Your task to perform on an android device: change the clock display to show seconds Image 0: 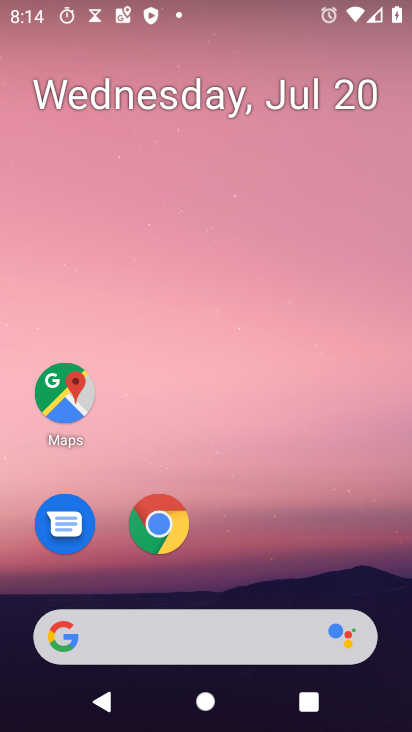
Step 0: drag from (196, 646) to (326, 173)
Your task to perform on an android device: change the clock display to show seconds Image 1: 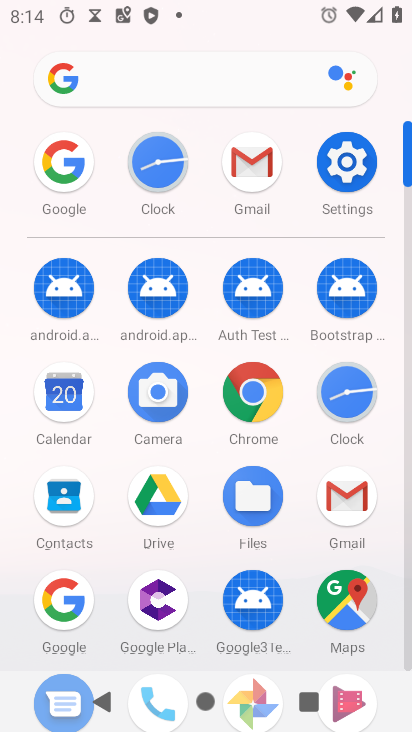
Step 1: click (156, 175)
Your task to perform on an android device: change the clock display to show seconds Image 2: 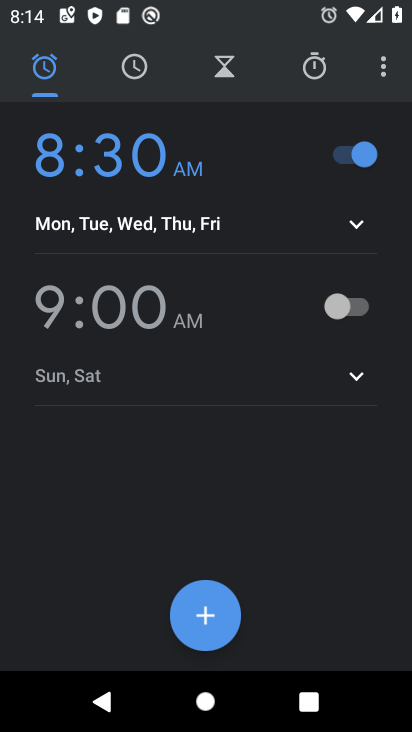
Step 2: click (383, 74)
Your task to perform on an android device: change the clock display to show seconds Image 3: 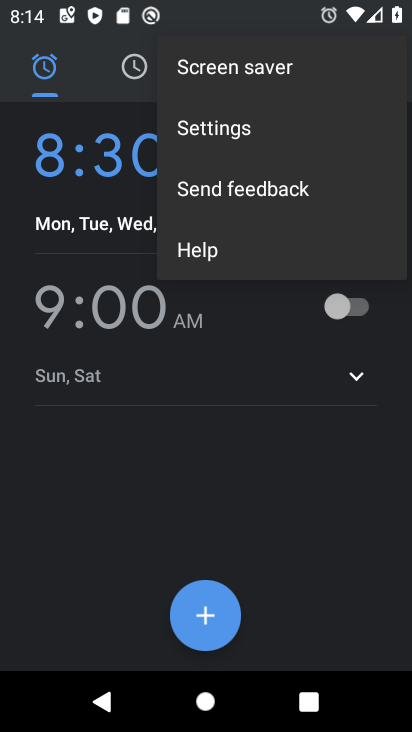
Step 3: click (223, 131)
Your task to perform on an android device: change the clock display to show seconds Image 4: 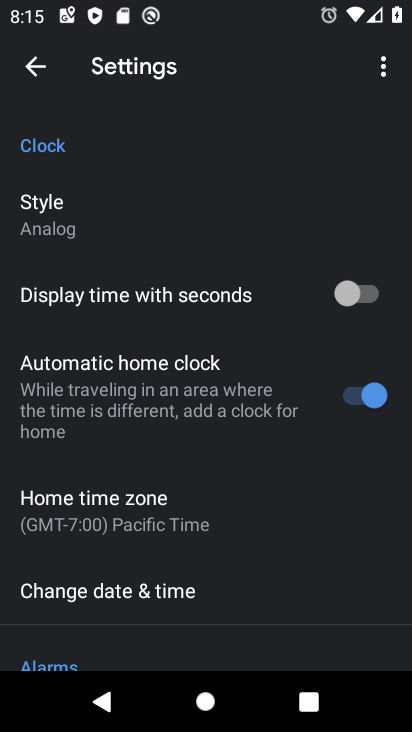
Step 4: click (362, 294)
Your task to perform on an android device: change the clock display to show seconds Image 5: 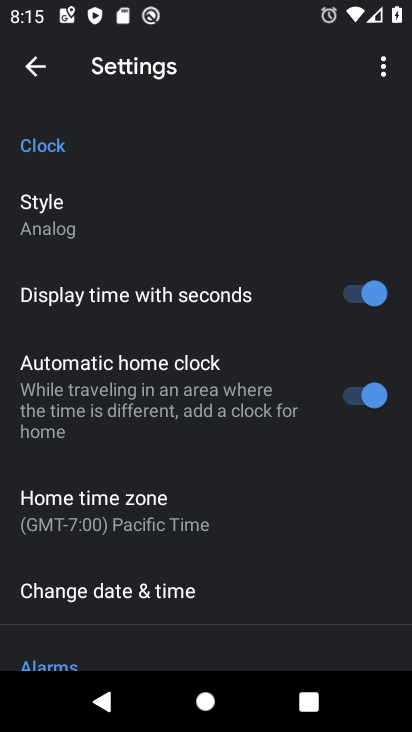
Step 5: task complete